Your task to perform on an android device: Set the phone to "Do not disturb". Image 0: 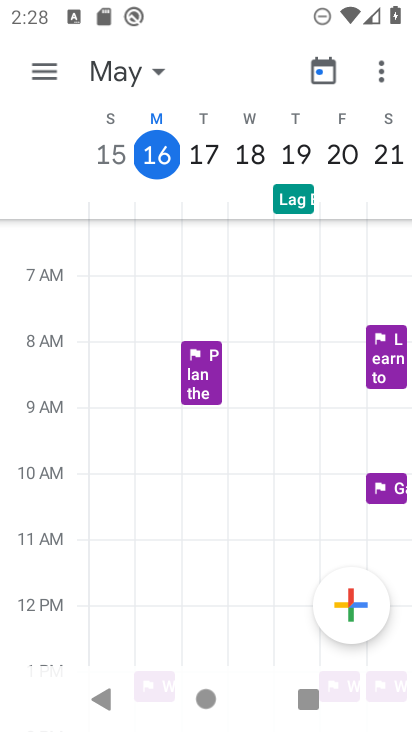
Step 0: press home button
Your task to perform on an android device: Set the phone to "Do not disturb". Image 1: 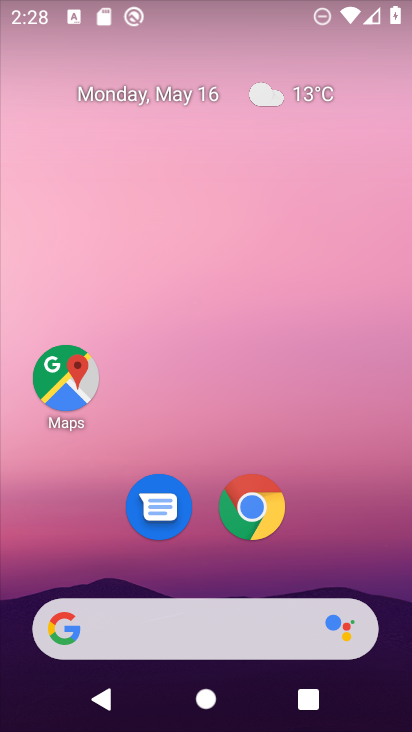
Step 1: drag from (322, 577) to (300, 202)
Your task to perform on an android device: Set the phone to "Do not disturb". Image 2: 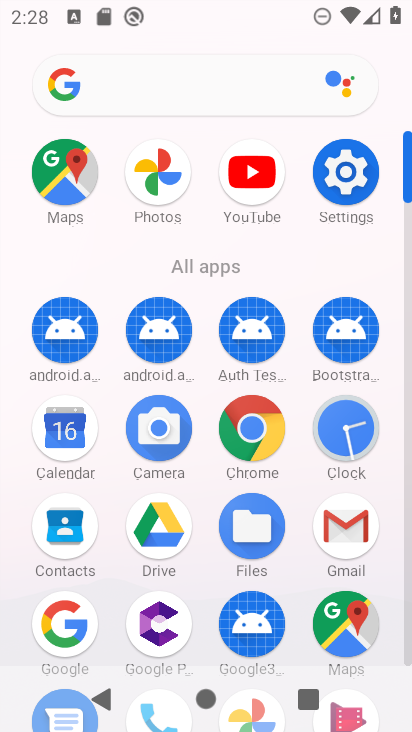
Step 2: click (340, 189)
Your task to perform on an android device: Set the phone to "Do not disturb". Image 3: 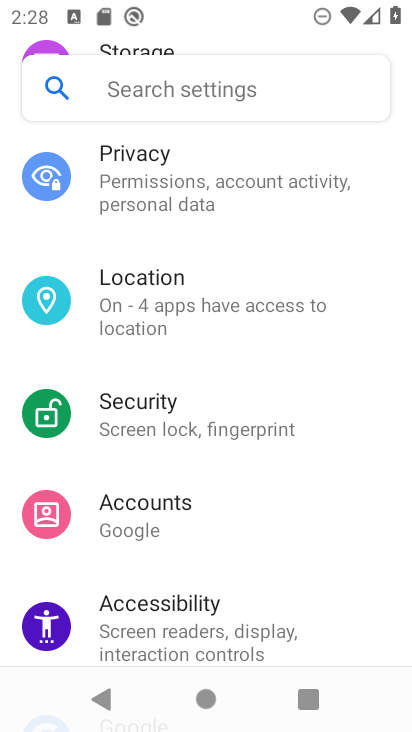
Step 3: drag from (260, 294) to (293, 605)
Your task to perform on an android device: Set the phone to "Do not disturb". Image 4: 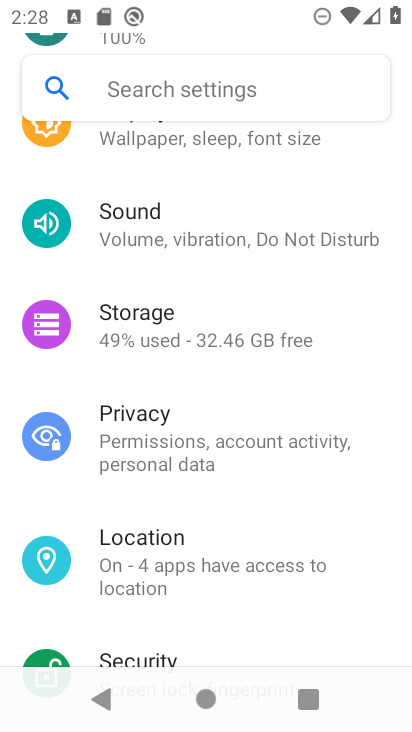
Step 4: click (285, 246)
Your task to perform on an android device: Set the phone to "Do not disturb". Image 5: 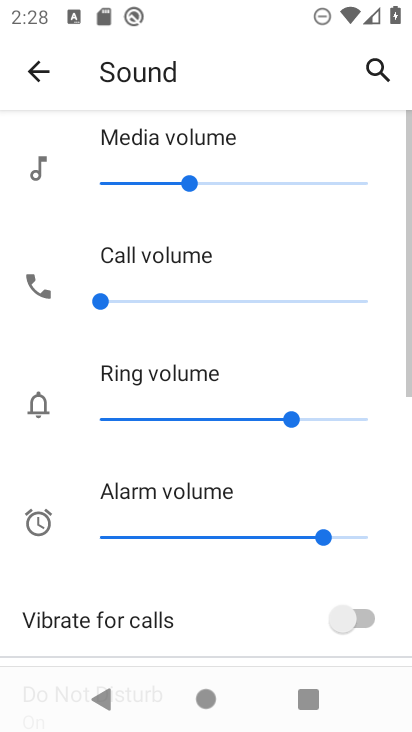
Step 5: drag from (228, 590) to (347, 47)
Your task to perform on an android device: Set the phone to "Do not disturb". Image 6: 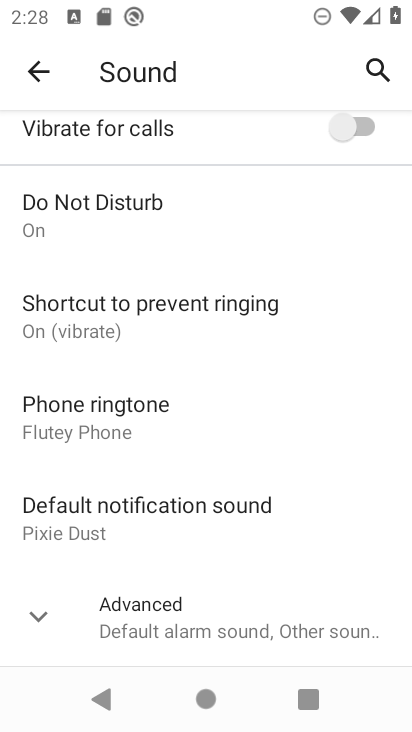
Step 6: click (165, 223)
Your task to perform on an android device: Set the phone to "Do not disturb". Image 7: 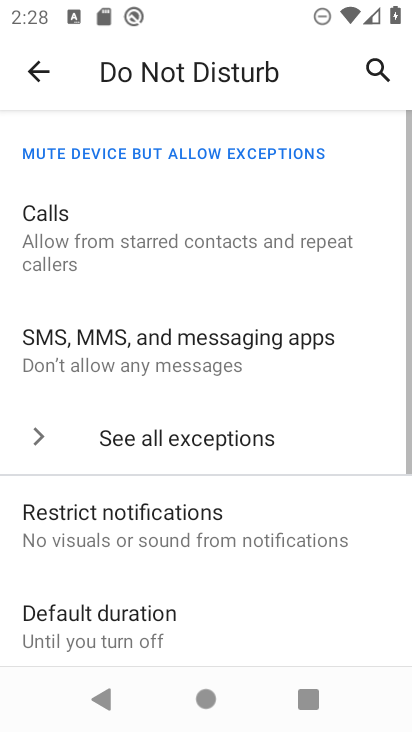
Step 7: task complete